Your task to perform on an android device: find photos in the google photos app Image 0: 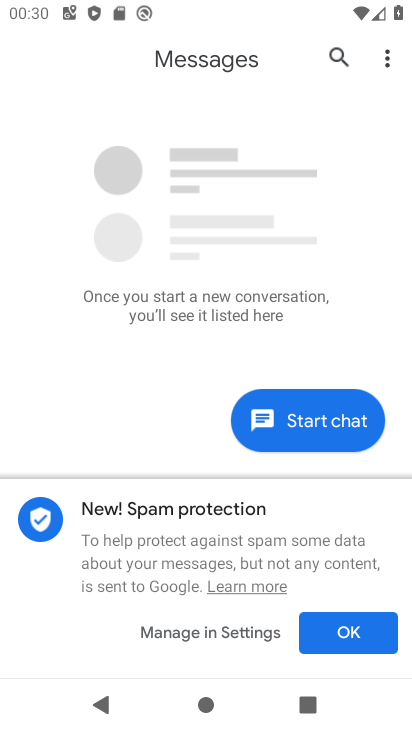
Step 0: press home button
Your task to perform on an android device: find photos in the google photos app Image 1: 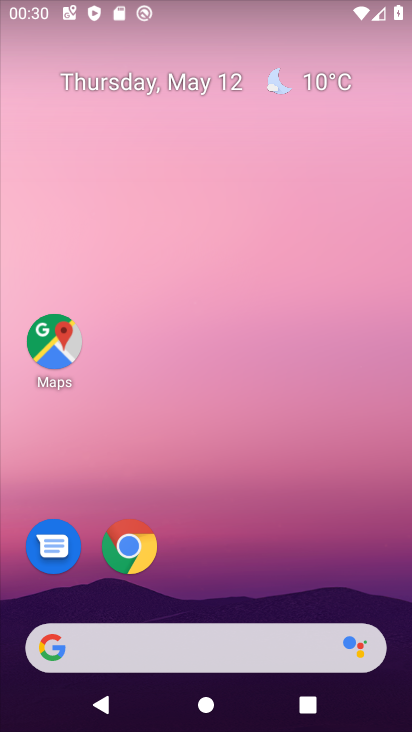
Step 1: drag from (74, 589) to (130, 283)
Your task to perform on an android device: find photos in the google photos app Image 2: 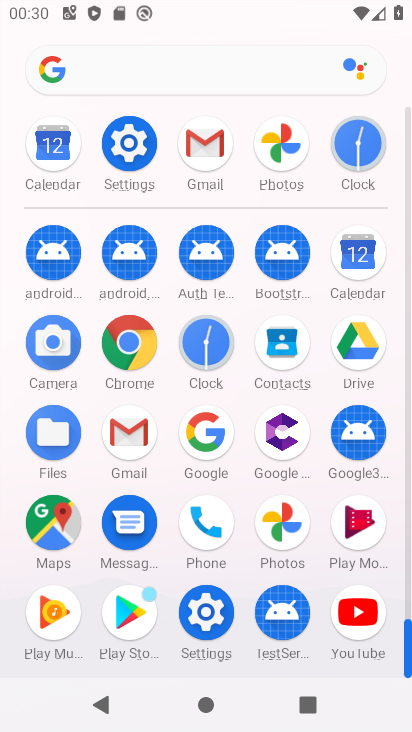
Step 2: click (283, 523)
Your task to perform on an android device: find photos in the google photos app Image 3: 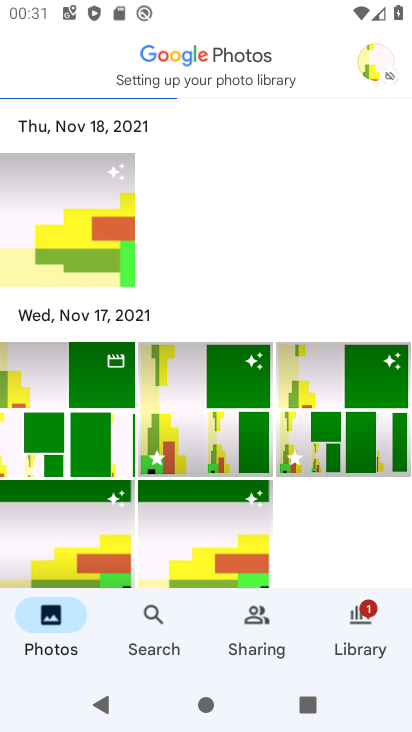
Step 3: task complete